Your task to perform on an android device: change the clock display to show seconds Image 0: 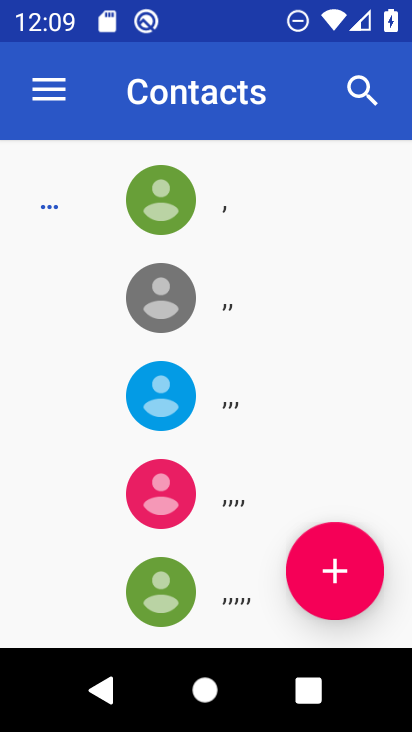
Step 0: press home button
Your task to perform on an android device: change the clock display to show seconds Image 1: 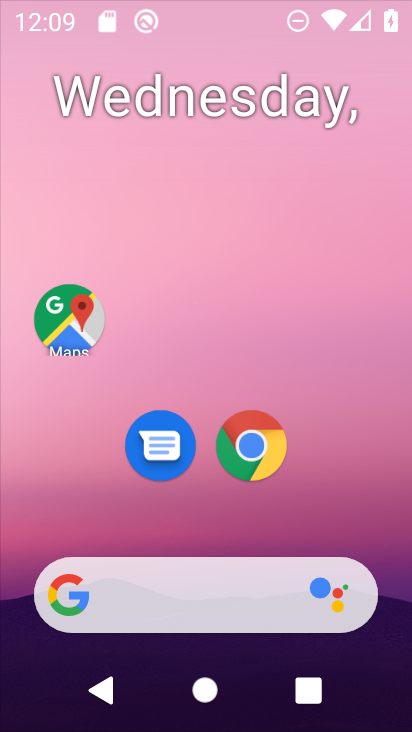
Step 1: drag from (395, 624) to (336, 83)
Your task to perform on an android device: change the clock display to show seconds Image 2: 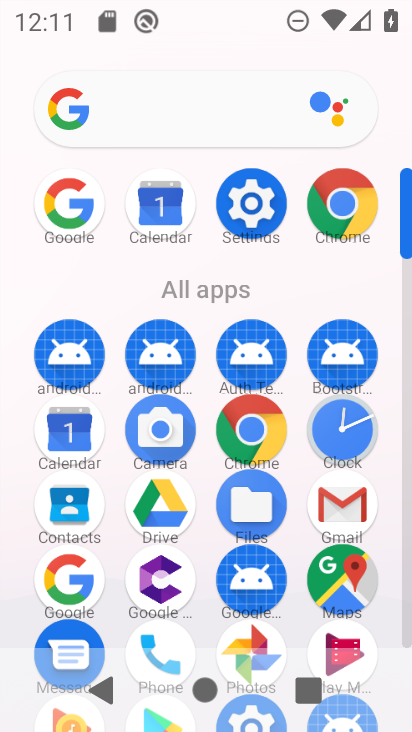
Step 2: click (346, 428)
Your task to perform on an android device: change the clock display to show seconds Image 3: 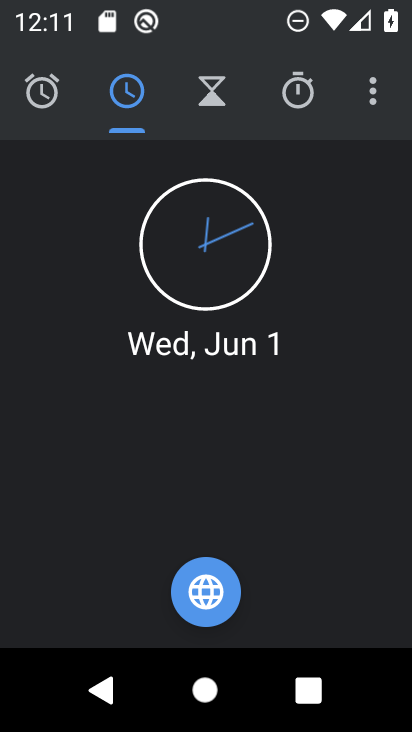
Step 3: click (379, 82)
Your task to perform on an android device: change the clock display to show seconds Image 4: 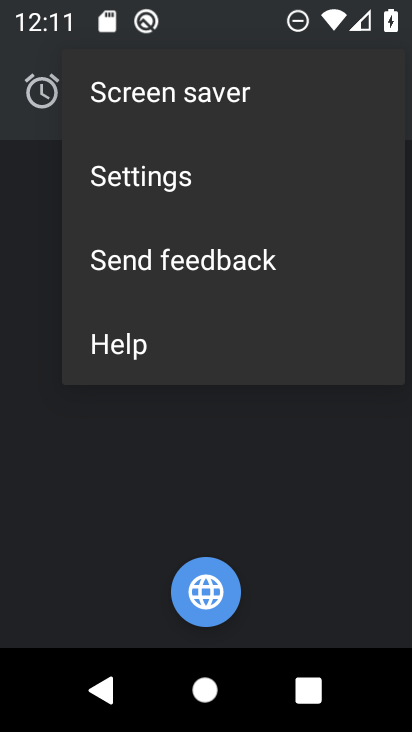
Step 4: click (216, 186)
Your task to perform on an android device: change the clock display to show seconds Image 5: 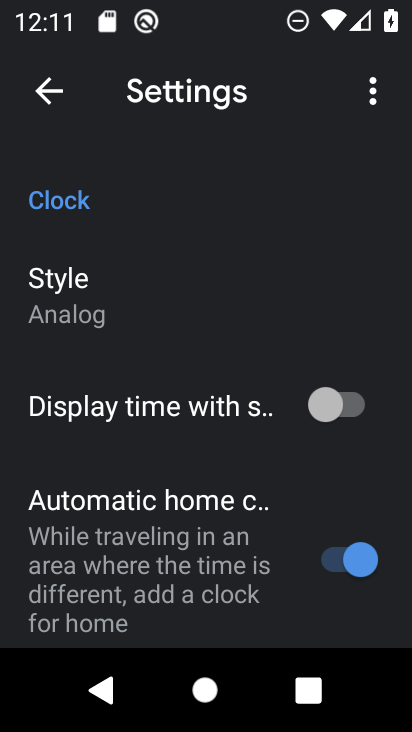
Step 5: click (307, 404)
Your task to perform on an android device: change the clock display to show seconds Image 6: 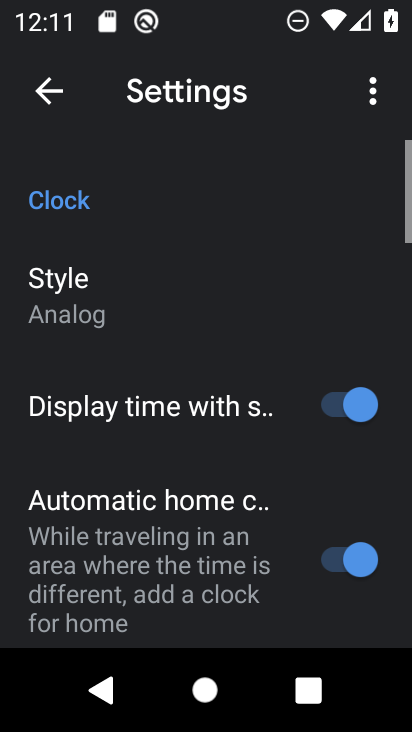
Step 6: task complete